Your task to perform on an android device: turn off wifi Image 0: 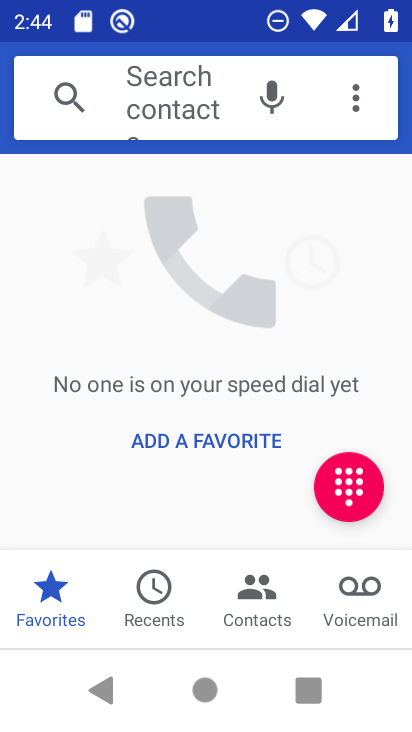
Step 0: press home button
Your task to perform on an android device: turn off wifi Image 1: 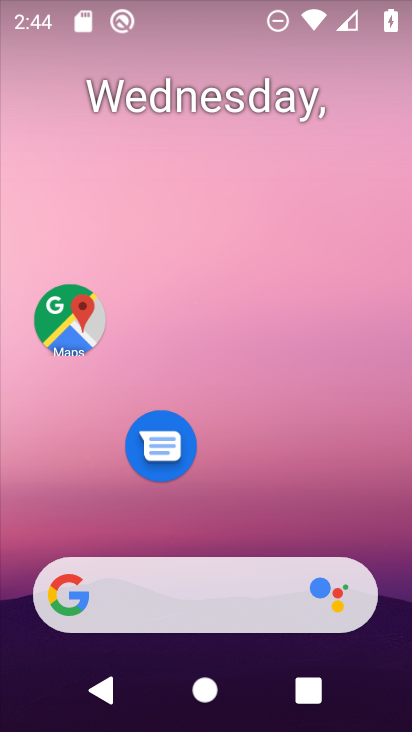
Step 1: drag from (364, 524) to (296, 26)
Your task to perform on an android device: turn off wifi Image 2: 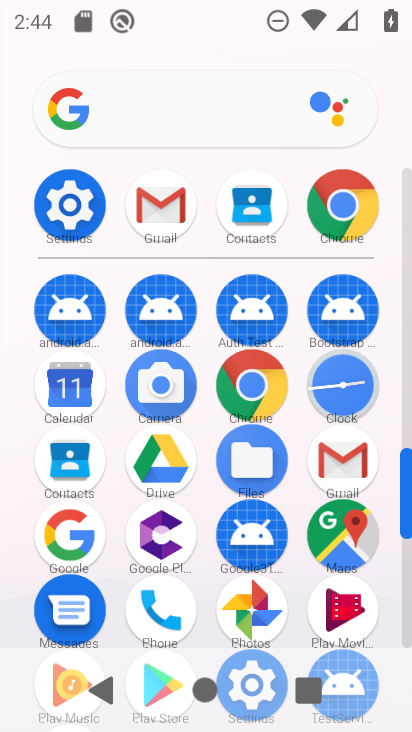
Step 2: click (55, 220)
Your task to perform on an android device: turn off wifi Image 3: 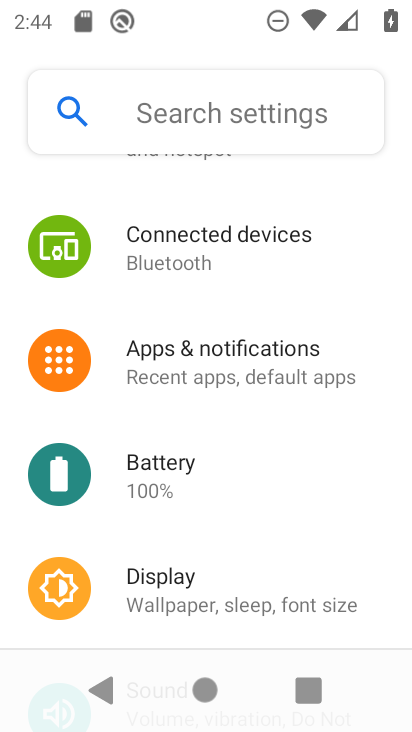
Step 3: drag from (211, 264) to (228, 640)
Your task to perform on an android device: turn off wifi Image 4: 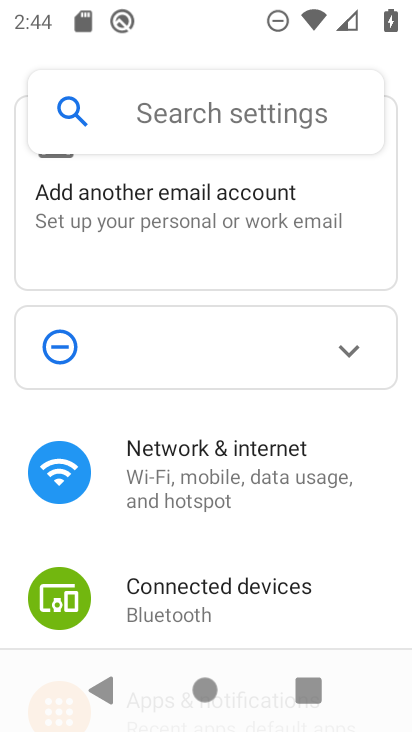
Step 4: click (269, 468)
Your task to perform on an android device: turn off wifi Image 5: 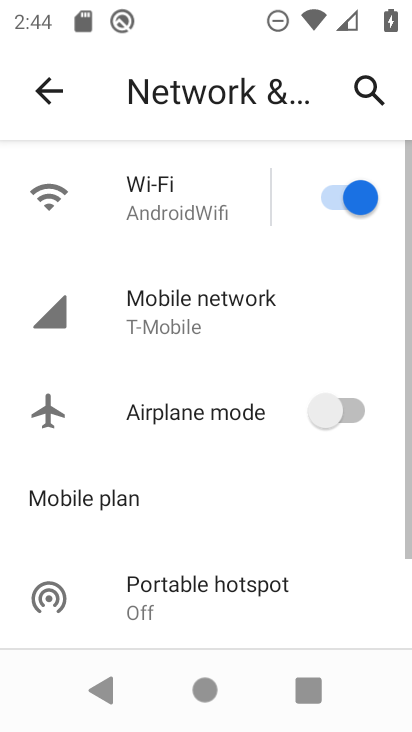
Step 5: click (351, 204)
Your task to perform on an android device: turn off wifi Image 6: 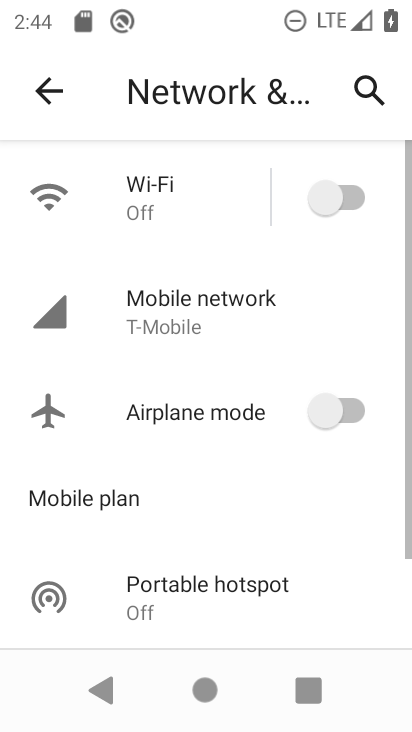
Step 6: task complete